Your task to perform on an android device: change the clock style Image 0: 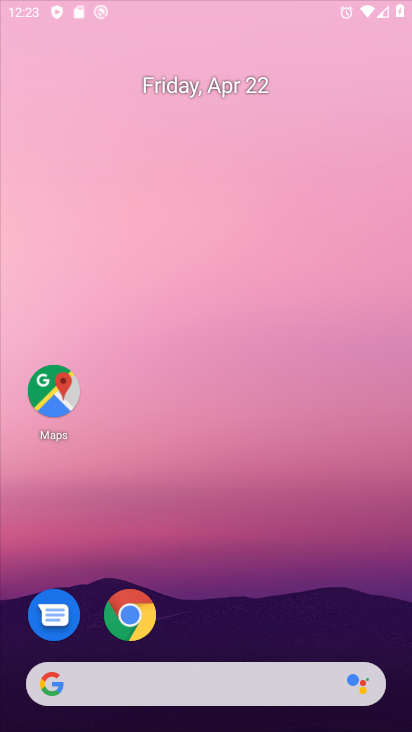
Step 0: click (49, 391)
Your task to perform on an android device: change the clock style Image 1: 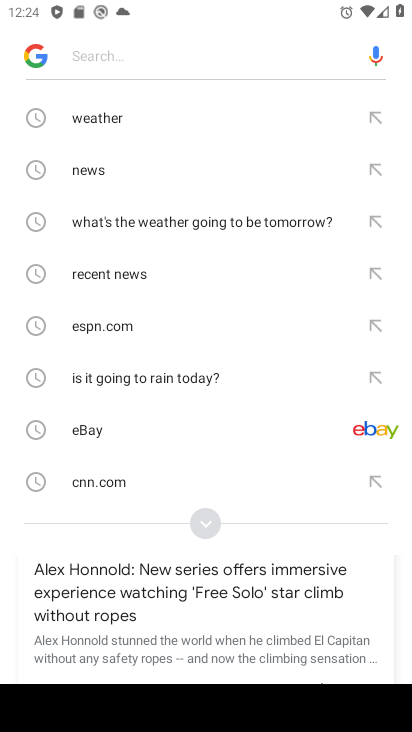
Step 1: press home button
Your task to perform on an android device: change the clock style Image 2: 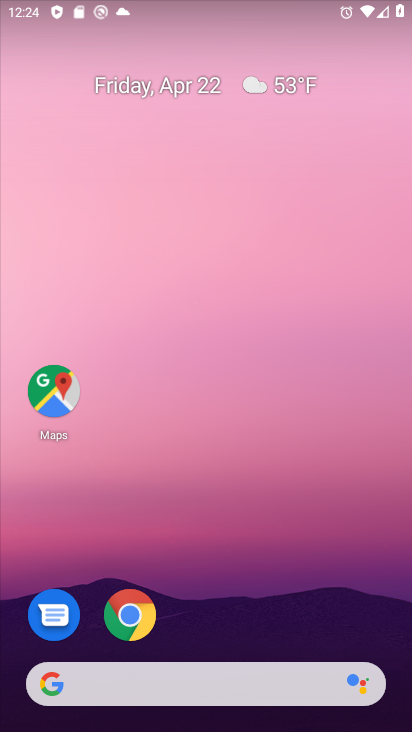
Step 2: drag from (202, 731) to (208, 107)
Your task to perform on an android device: change the clock style Image 3: 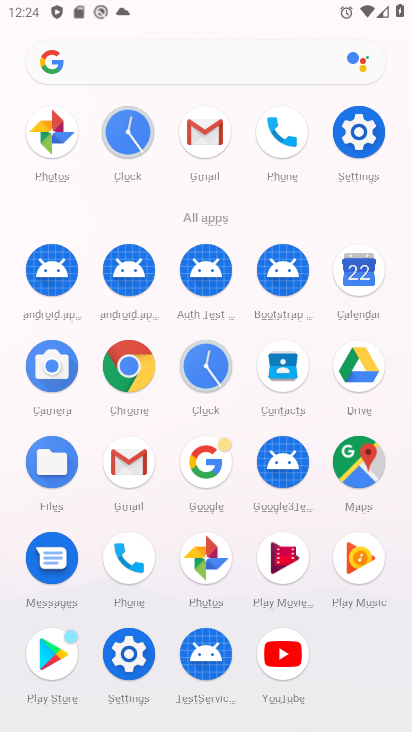
Step 3: click (208, 379)
Your task to perform on an android device: change the clock style Image 4: 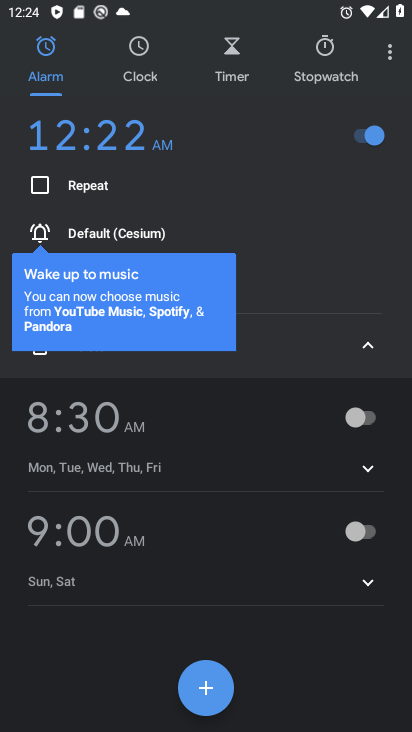
Step 4: click (386, 51)
Your task to perform on an android device: change the clock style Image 5: 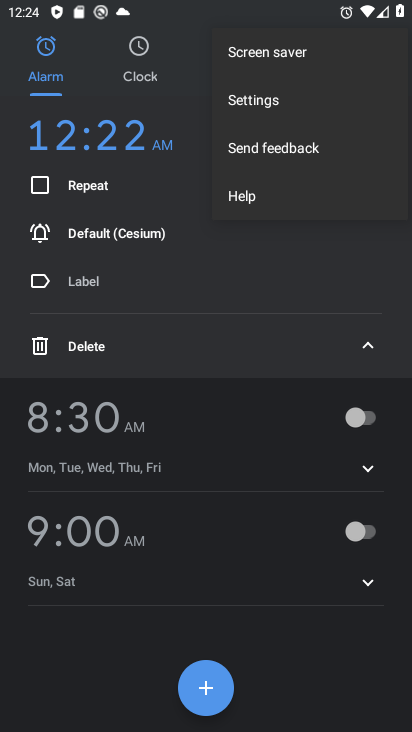
Step 5: click (272, 119)
Your task to perform on an android device: change the clock style Image 6: 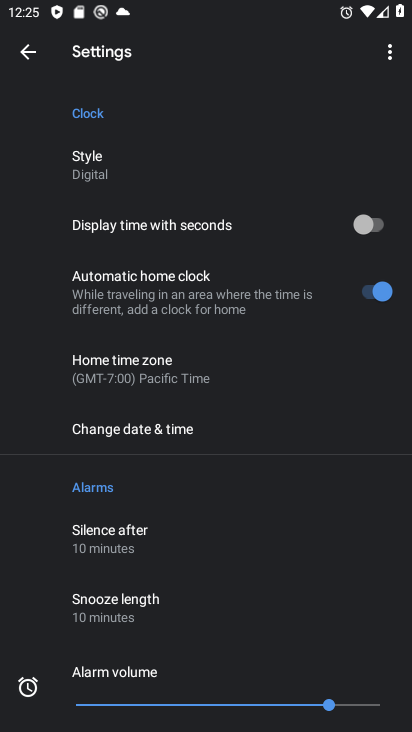
Step 6: click (143, 163)
Your task to perform on an android device: change the clock style Image 7: 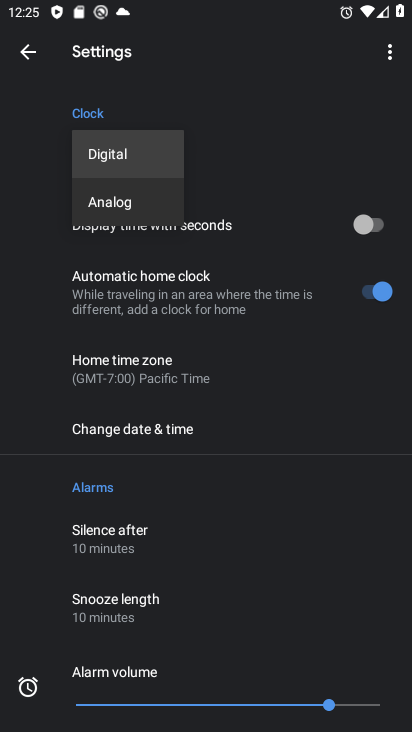
Step 7: click (122, 204)
Your task to perform on an android device: change the clock style Image 8: 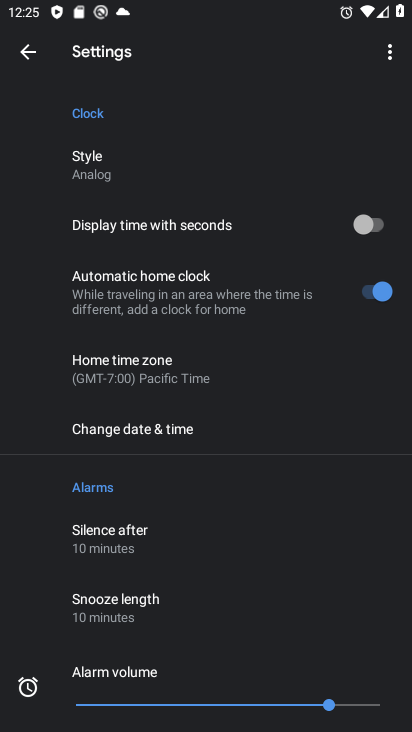
Step 8: task complete